Your task to perform on an android device: see tabs open on other devices in the chrome app Image 0: 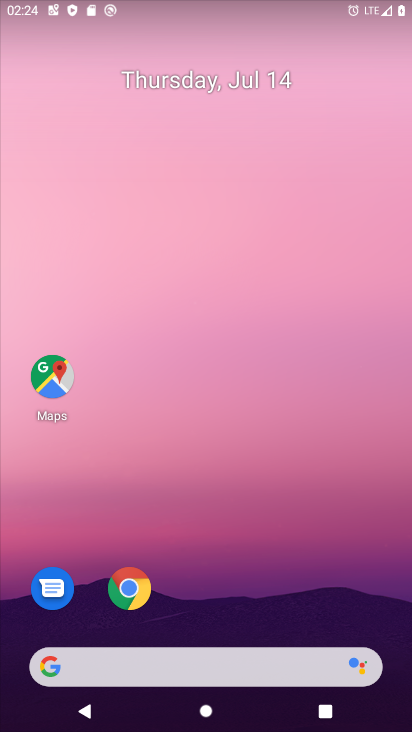
Step 0: drag from (144, 716) to (330, 177)
Your task to perform on an android device: see tabs open on other devices in the chrome app Image 1: 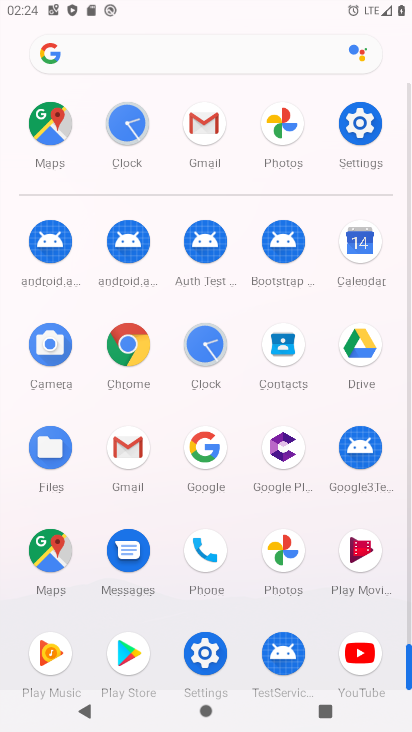
Step 1: click (142, 330)
Your task to perform on an android device: see tabs open on other devices in the chrome app Image 2: 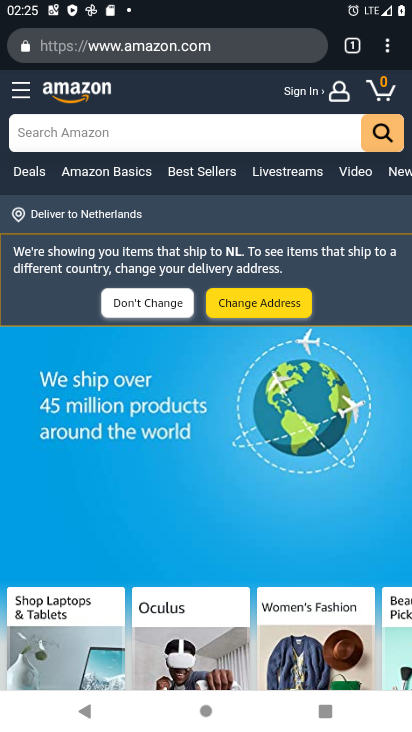
Step 2: click (391, 49)
Your task to perform on an android device: see tabs open on other devices in the chrome app Image 3: 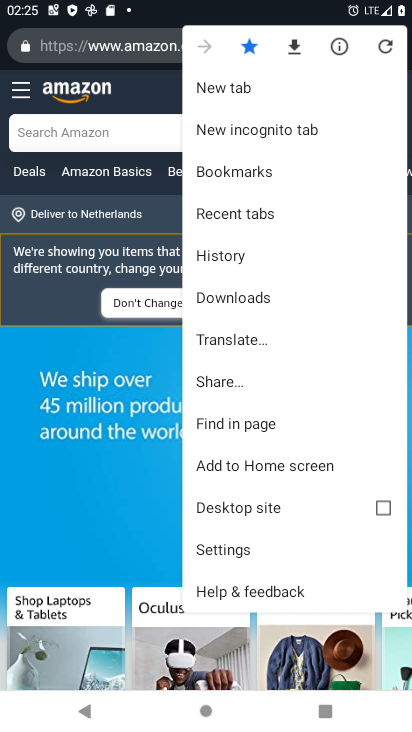
Step 3: click (261, 216)
Your task to perform on an android device: see tabs open on other devices in the chrome app Image 4: 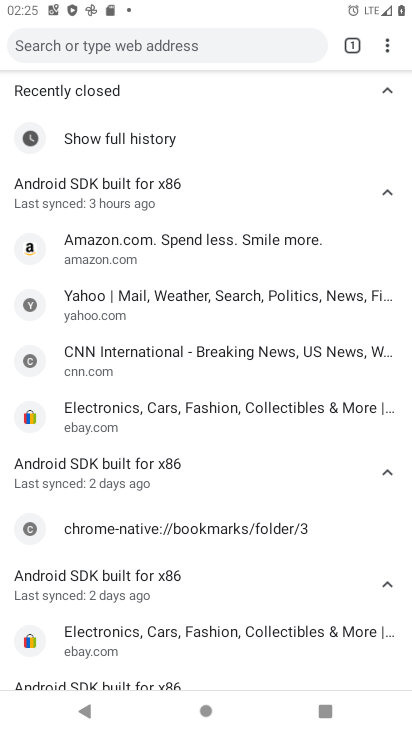
Step 4: task complete